Your task to perform on an android device: Open Google Chrome and click the shortcut for Amazon.com Image 0: 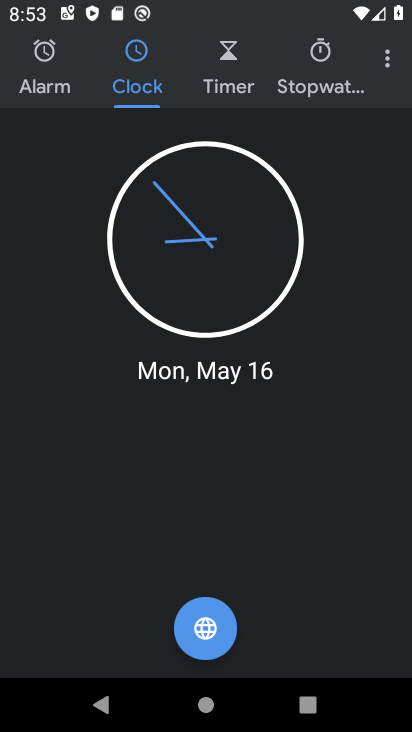
Step 0: press home button
Your task to perform on an android device: Open Google Chrome and click the shortcut for Amazon.com Image 1: 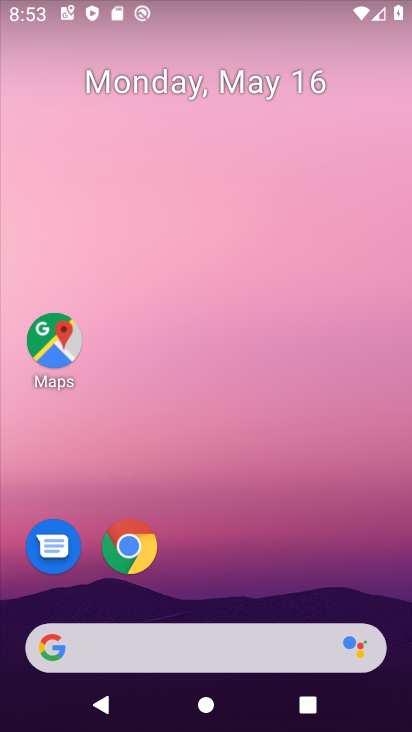
Step 1: drag from (244, 675) to (261, 237)
Your task to perform on an android device: Open Google Chrome and click the shortcut for Amazon.com Image 2: 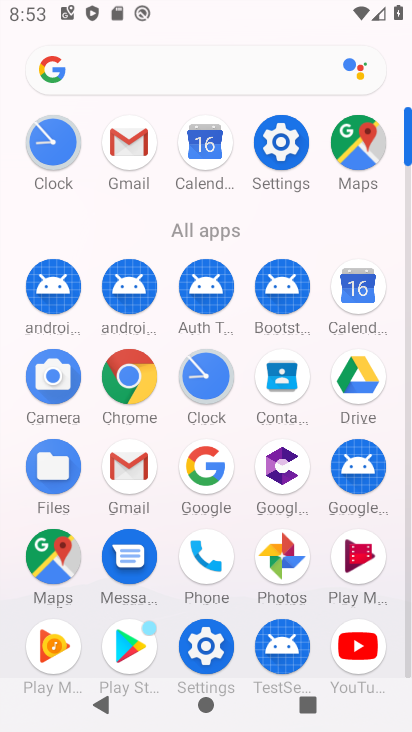
Step 2: click (127, 377)
Your task to perform on an android device: Open Google Chrome and click the shortcut for Amazon.com Image 3: 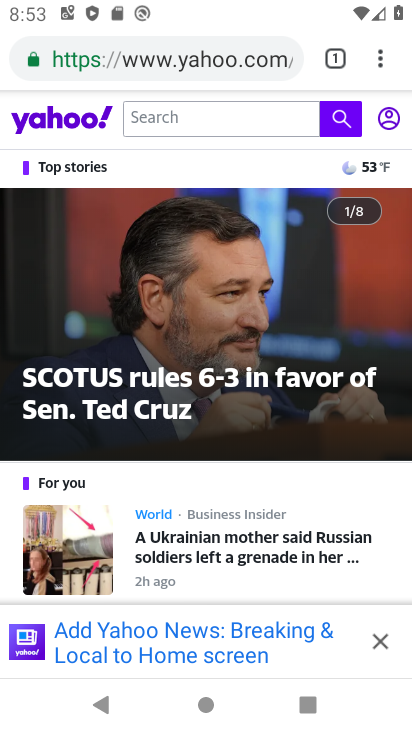
Step 3: click (199, 60)
Your task to perform on an android device: Open Google Chrome and click the shortcut for Amazon.com Image 4: 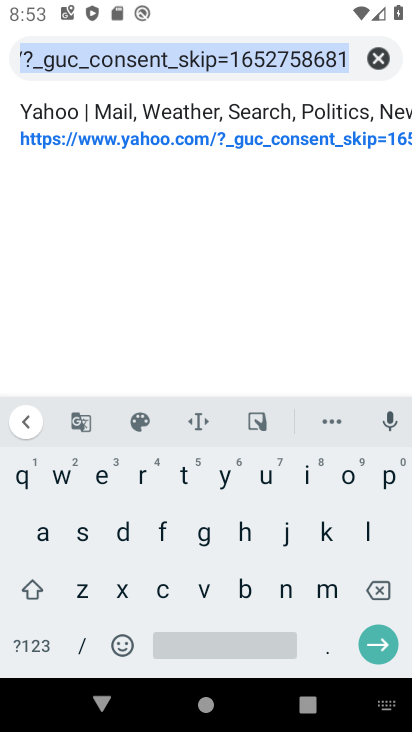
Step 4: click (383, 52)
Your task to perform on an android device: Open Google Chrome and click the shortcut for Amazon.com Image 5: 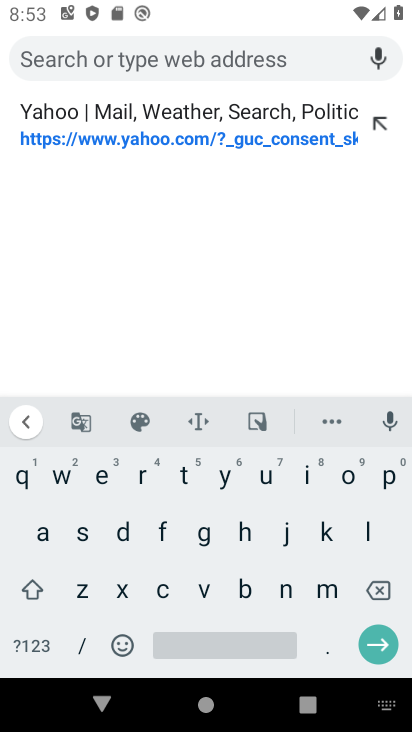
Step 5: click (32, 521)
Your task to perform on an android device: Open Google Chrome and click the shortcut for Amazon.com Image 6: 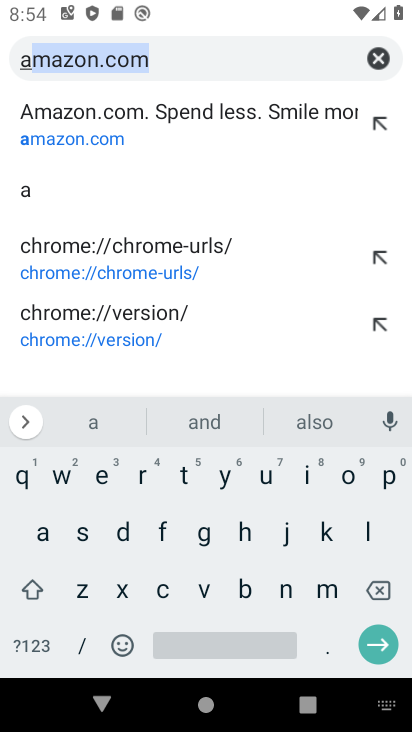
Step 6: click (199, 60)
Your task to perform on an android device: Open Google Chrome and click the shortcut for Amazon.com Image 7: 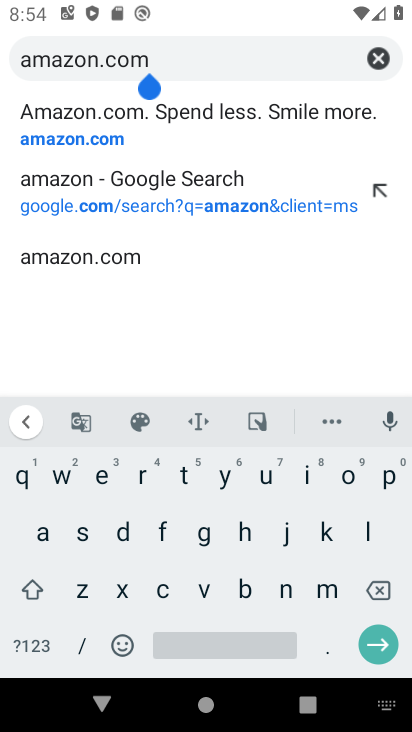
Step 7: click (375, 653)
Your task to perform on an android device: Open Google Chrome and click the shortcut for Amazon.com Image 8: 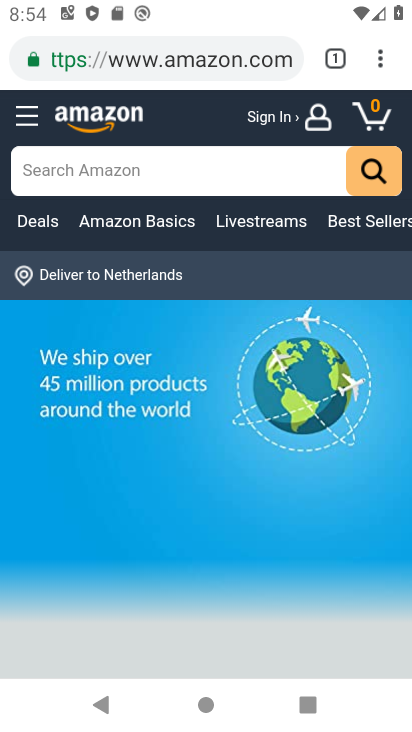
Step 8: click (378, 77)
Your task to perform on an android device: Open Google Chrome and click the shortcut for Amazon.com Image 9: 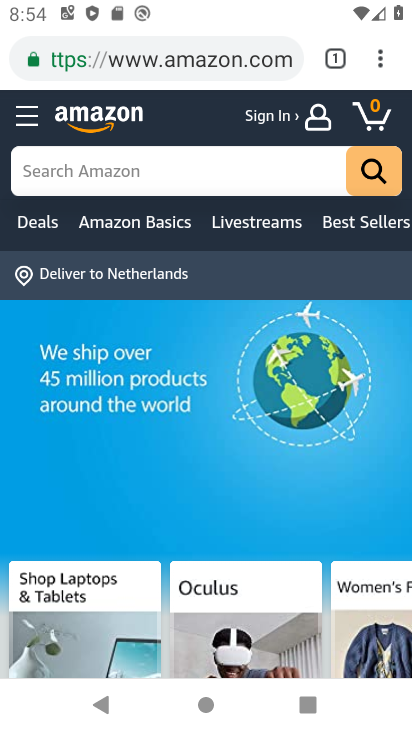
Step 9: click (385, 71)
Your task to perform on an android device: Open Google Chrome and click the shortcut for Amazon.com Image 10: 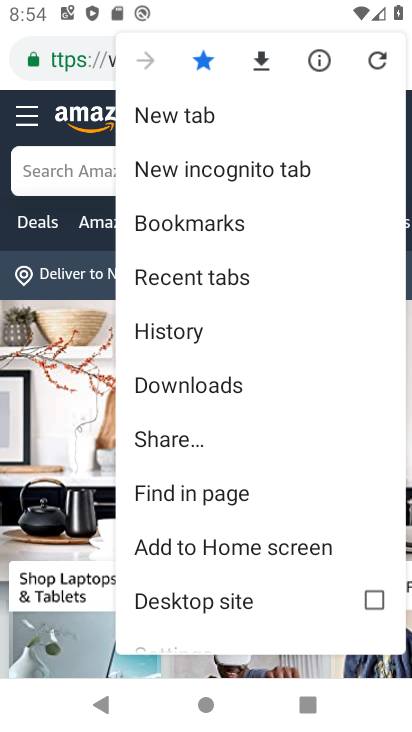
Step 10: click (218, 547)
Your task to perform on an android device: Open Google Chrome and click the shortcut for Amazon.com Image 11: 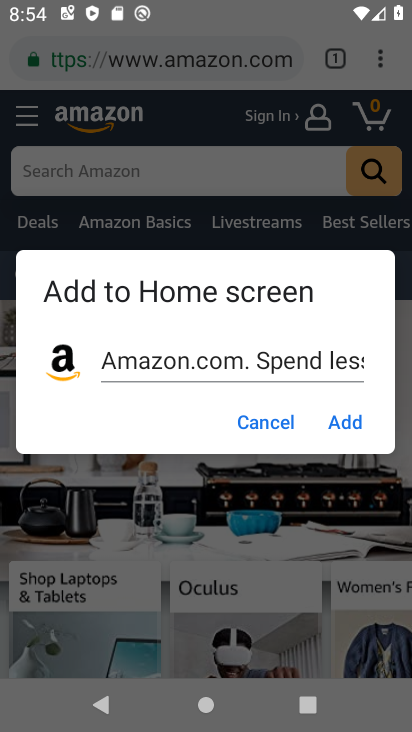
Step 11: click (345, 422)
Your task to perform on an android device: Open Google Chrome and click the shortcut for Amazon.com Image 12: 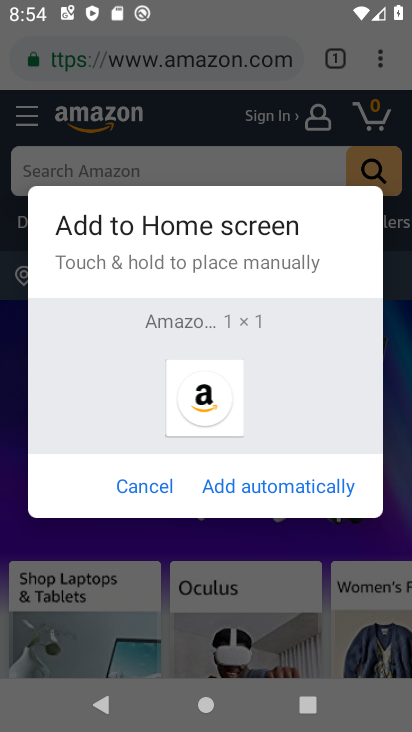
Step 12: click (330, 471)
Your task to perform on an android device: Open Google Chrome and click the shortcut for Amazon.com Image 13: 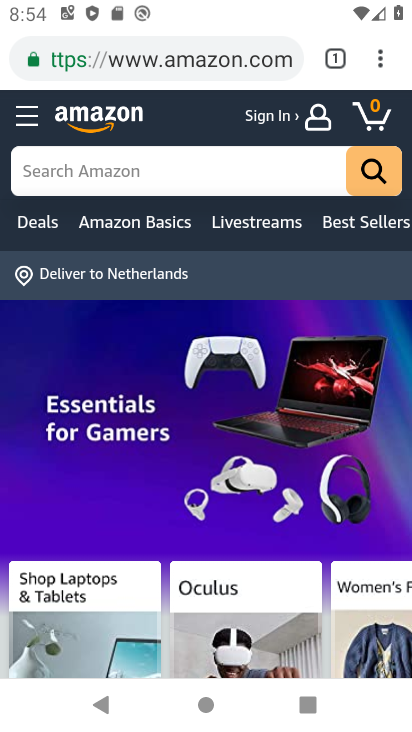
Step 13: task complete